Your task to perform on an android device: Empty the shopping cart on costco.com. Search for "macbook" on costco.com, select the first entry, add it to the cart, then select checkout. Image 0: 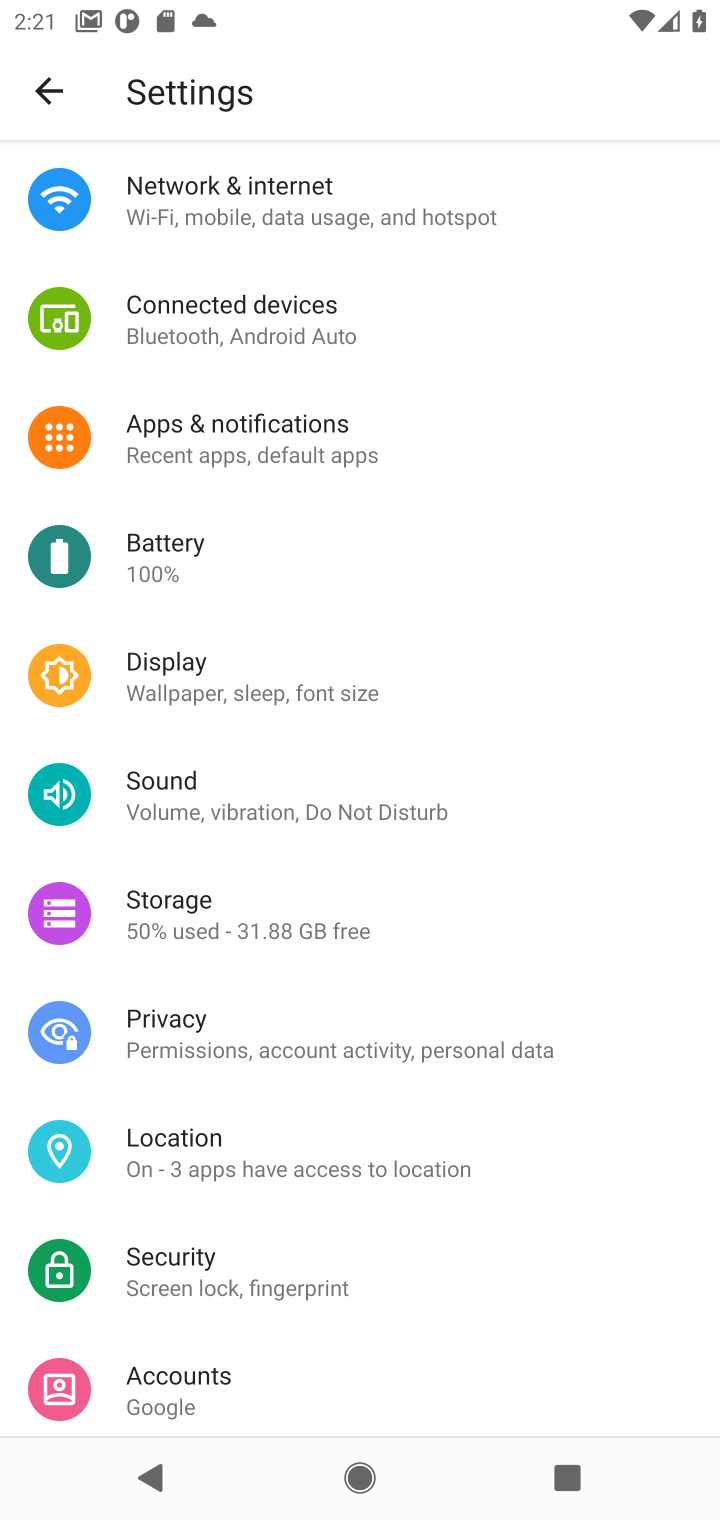
Step 0: press home button
Your task to perform on an android device: Empty the shopping cart on costco.com. Search for "macbook" on costco.com, select the first entry, add it to the cart, then select checkout. Image 1: 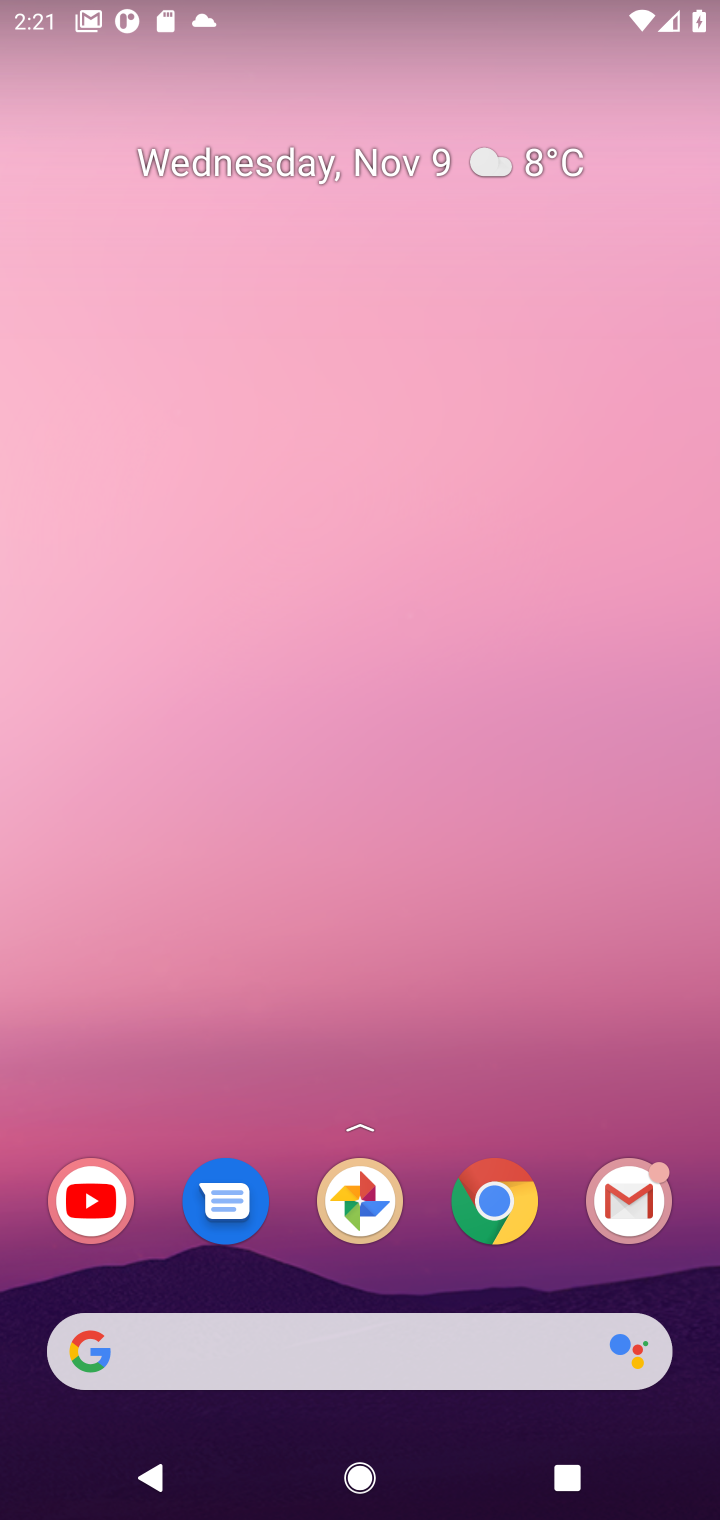
Step 1: click (368, 1339)
Your task to perform on an android device: Empty the shopping cart on costco.com. Search for "macbook" on costco.com, select the first entry, add it to the cart, then select checkout. Image 2: 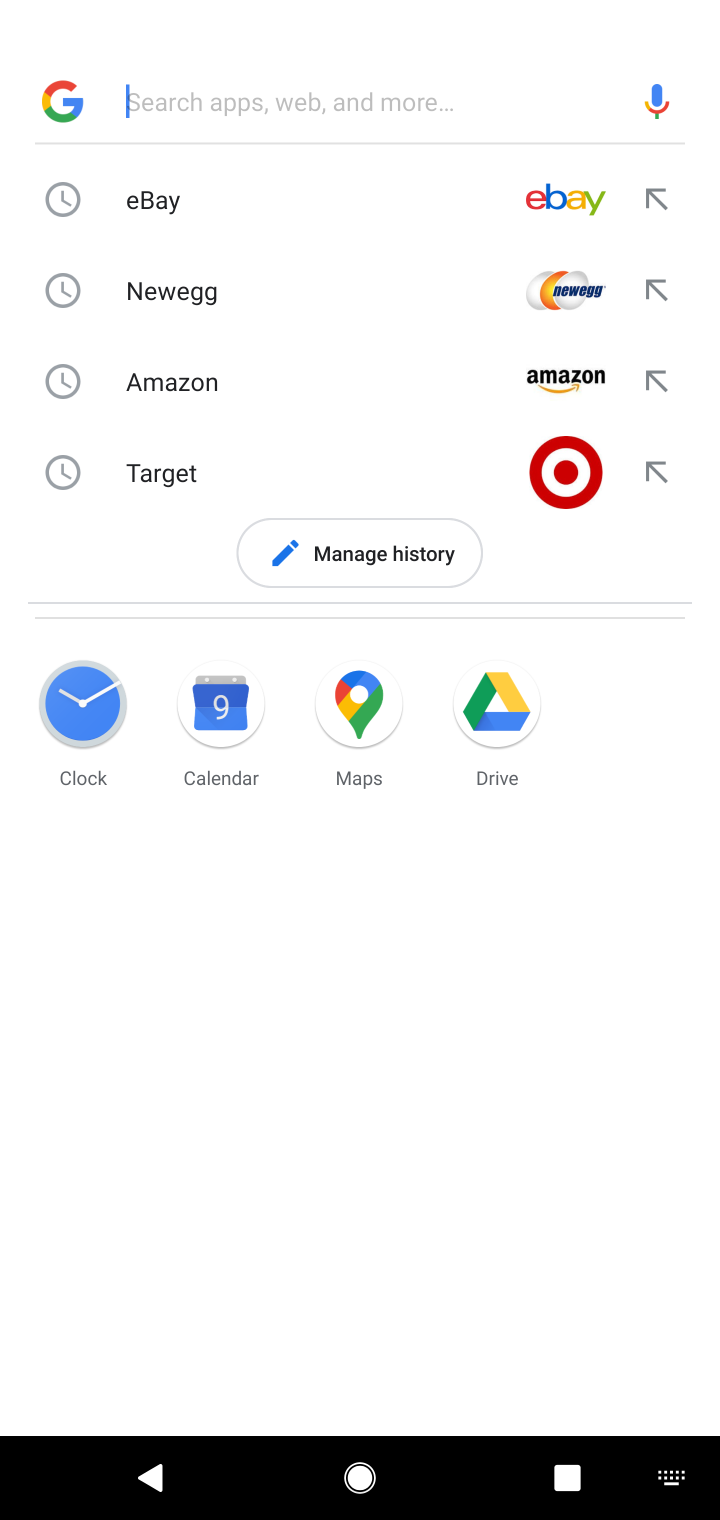
Step 2: type "costco.com"
Your task to perform on an android device: Empty the shopping cart on costco.com. Search for "macbook" on costco.com, select the first entry, add it to the cart, then select checkout. Image 3: 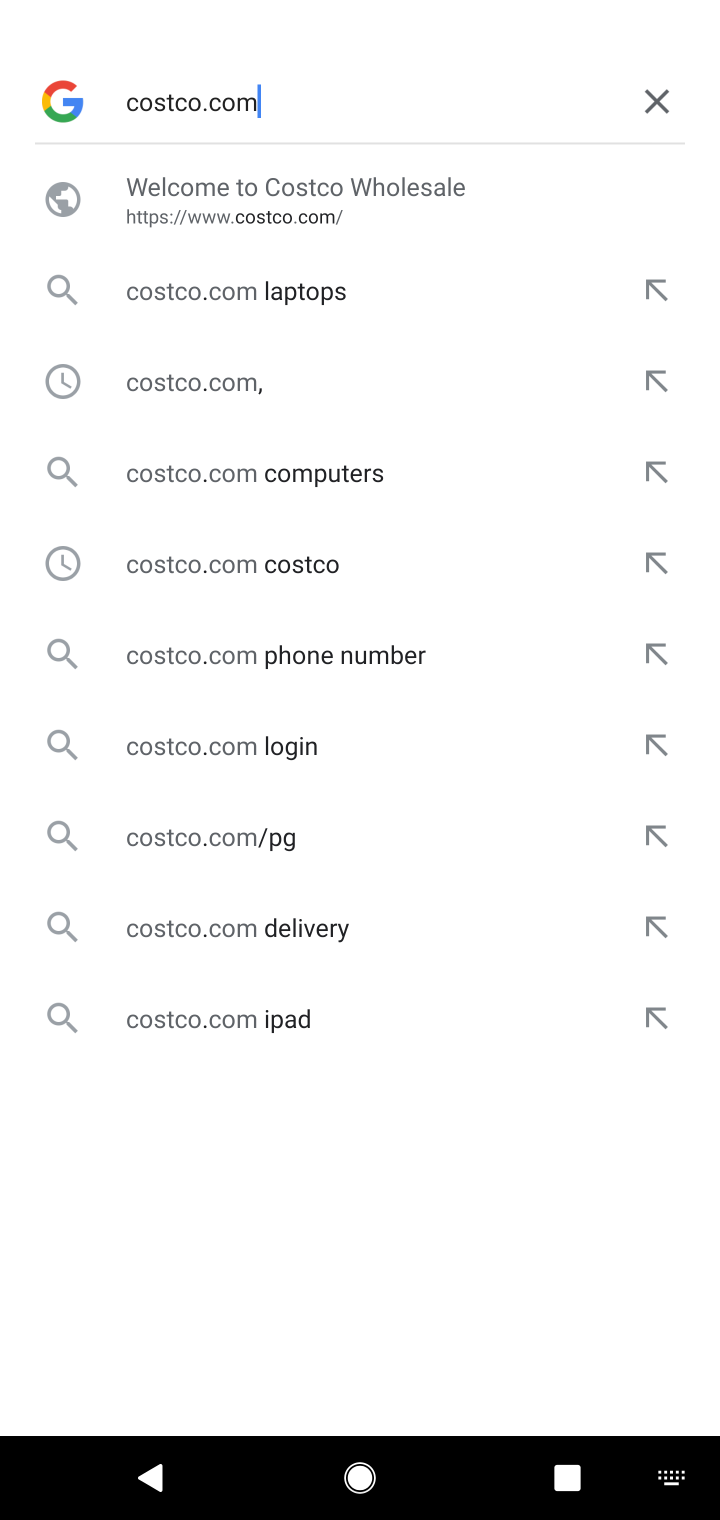
Step 3: click (248, 208)
Your task to perform on an android device: Empty the shopping cart on costco.com. Search for "macbook" on costco.com, select the first entry, add it to the cart, then select checkout. Image 4: 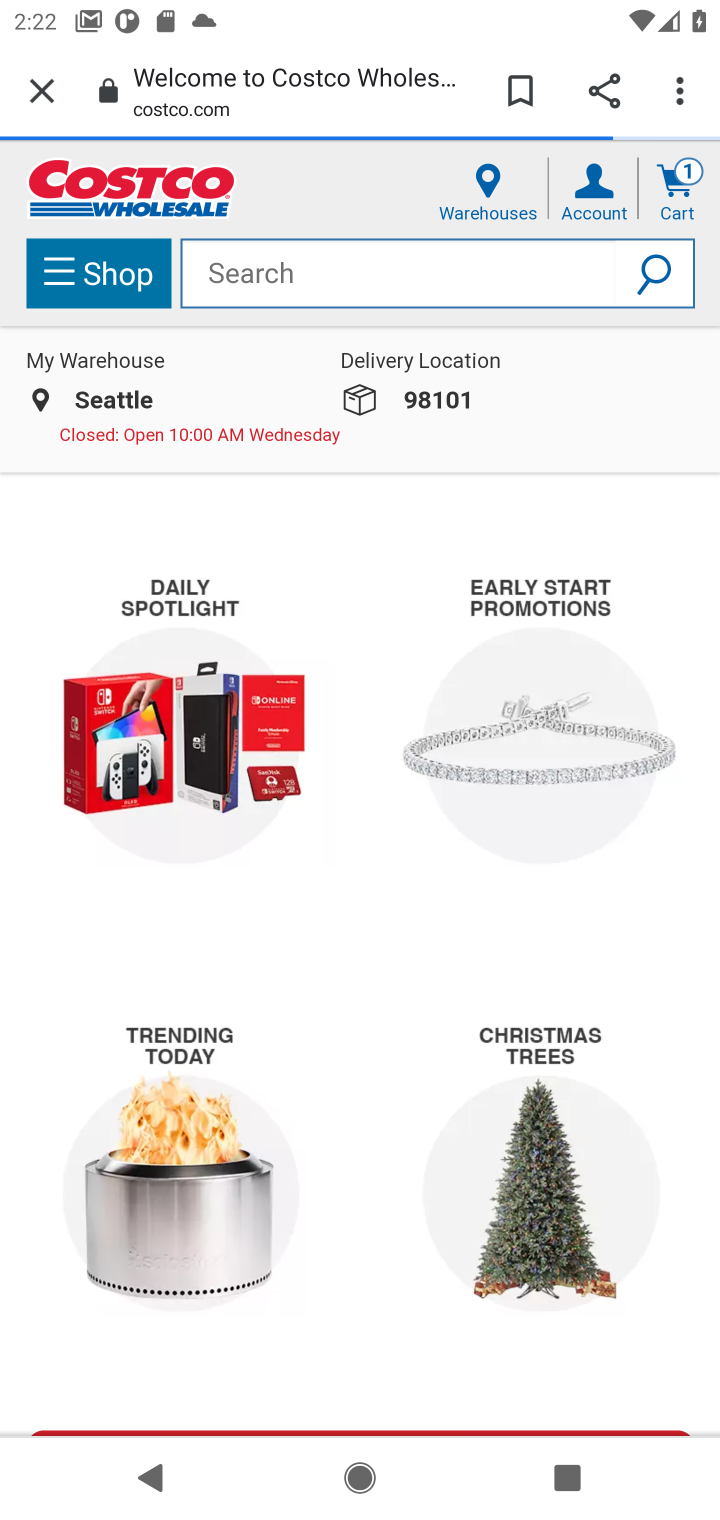
Step 4: click (327, 236)
Your task to perform on an android device: Empty the shopping cart on costco.com. Search for "macbook" on costco.com, select the first entry, add it to the cart, then select checkout. Image 5: 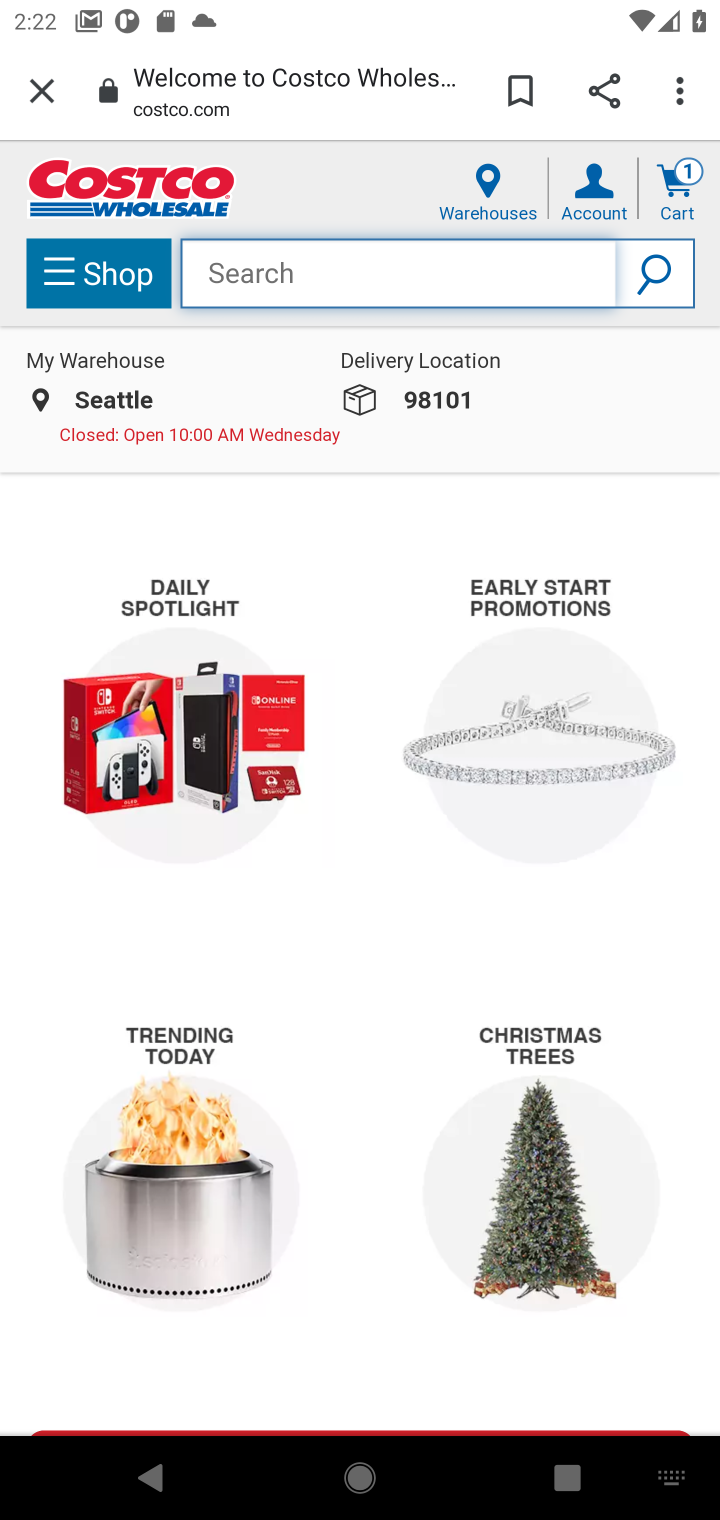
Step 5: type "macbook"
Your task to perform on an android device: Empty the shopping cart on costco.com. Search for "macbook" on costco.com, select the first entry, add it to the cart, then select checkout. Image 6: 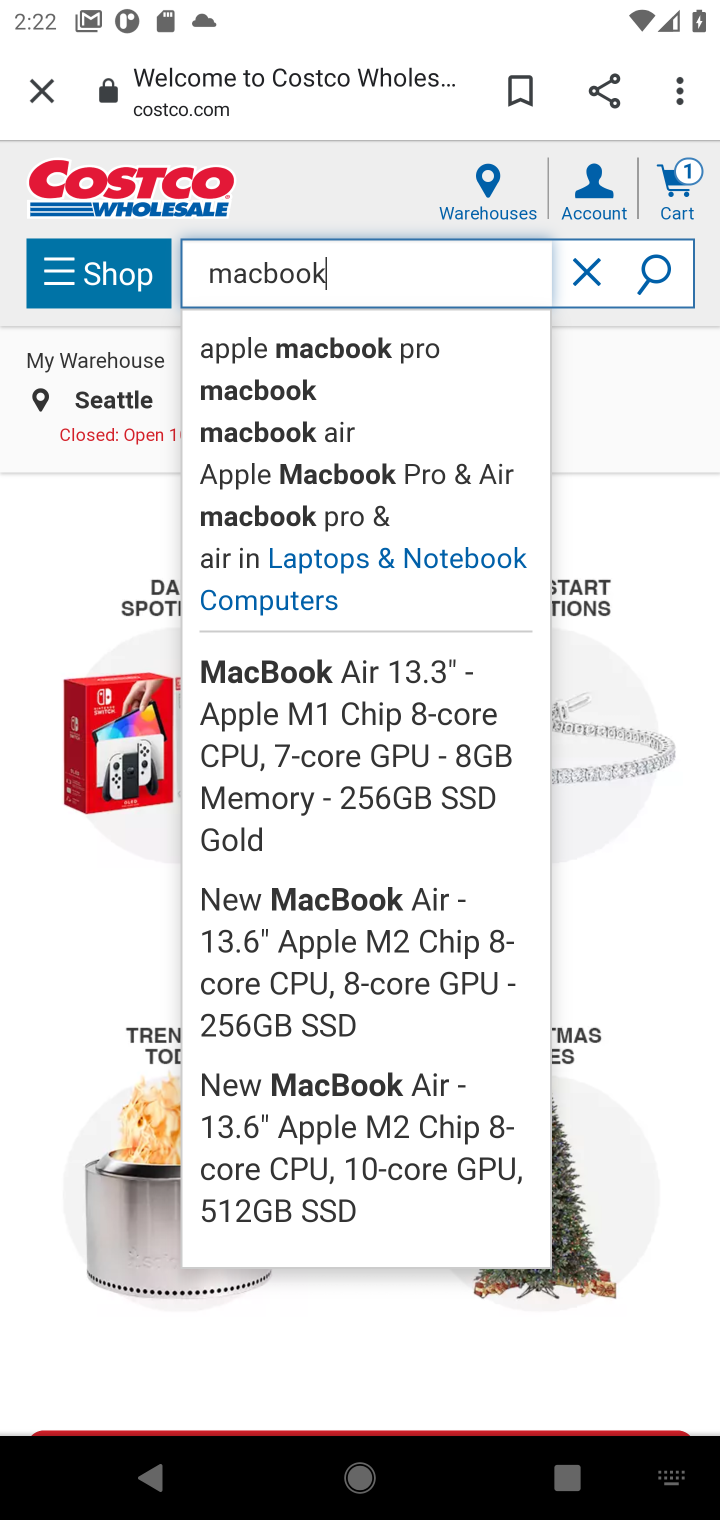
Step 6: click (278, 390)
Your task to perform on an android device: Empty the shopping cart on costco.com. Search for "macbook" on costco.com, select the first entry, add it to the cart, then select checkout. Image 7: 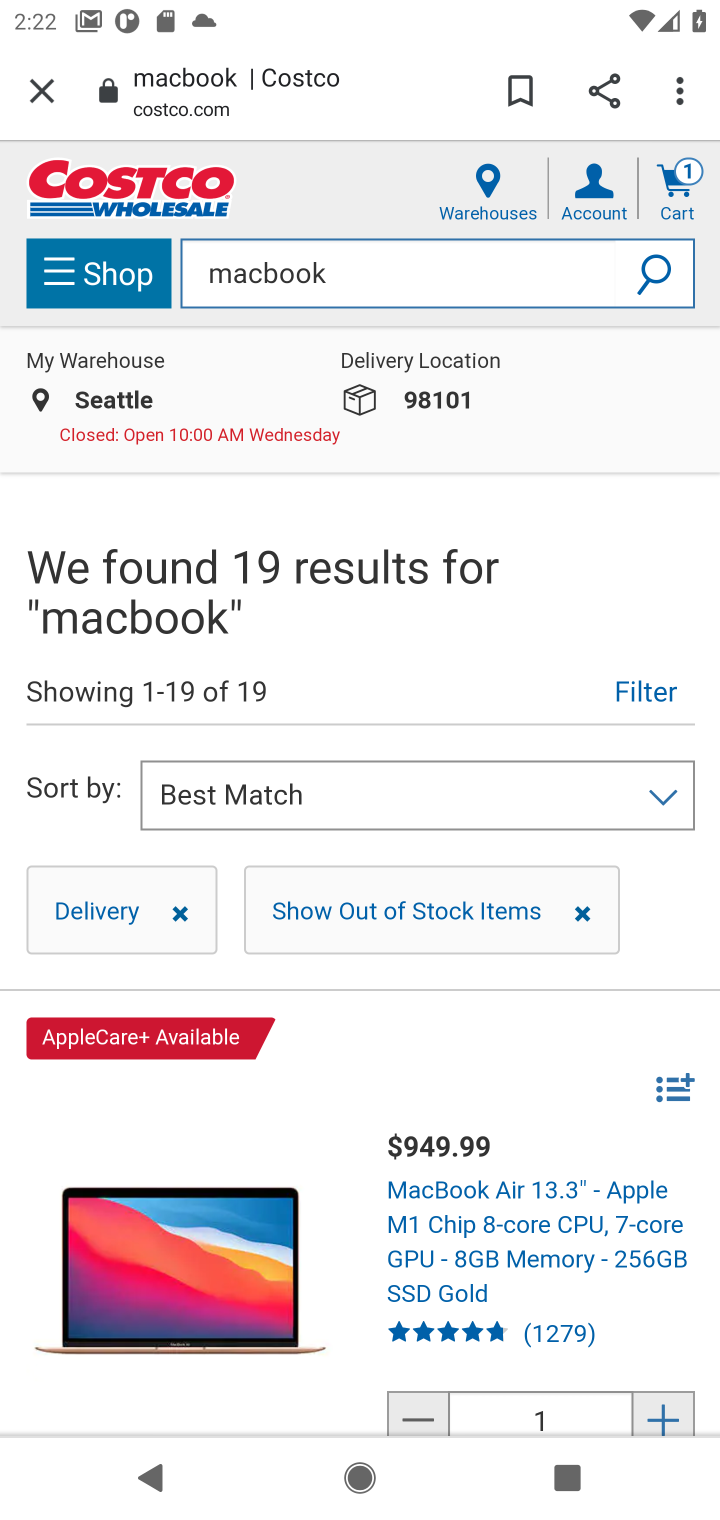
Step 7: drag from (503, 1008) to (503, 741)
Your task to perform on an android device: Empty the shopping cart on costco.com. Search for "macbook" on costco.com, select the first entry, add it to the cart, then select checkout. Image 8: 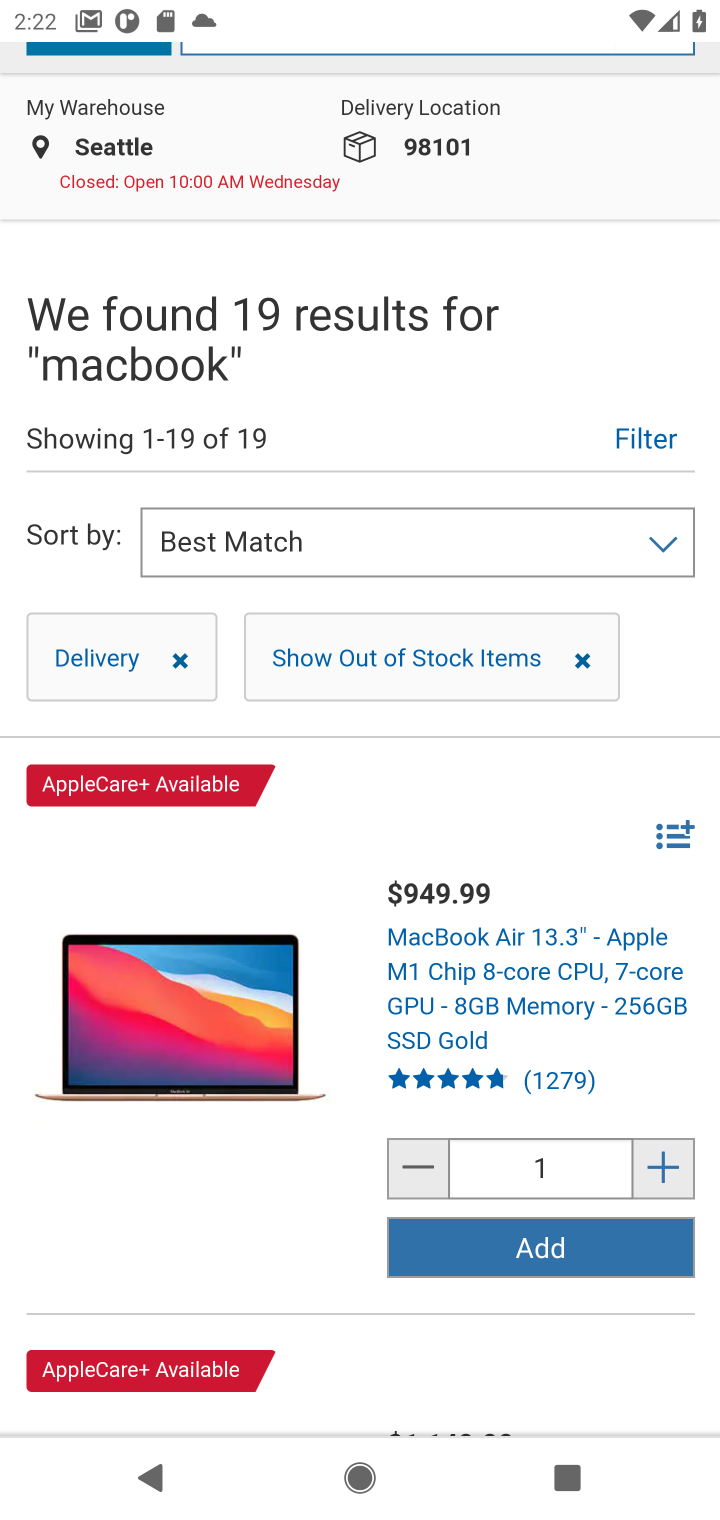
Step 8: click (542, 1254)
Your task to perform on an android device: Empty the shopping cart on costco.com. Search for "macbook" on costco.com, select the first entry, add it to the cart, then select checkout. Image 9: 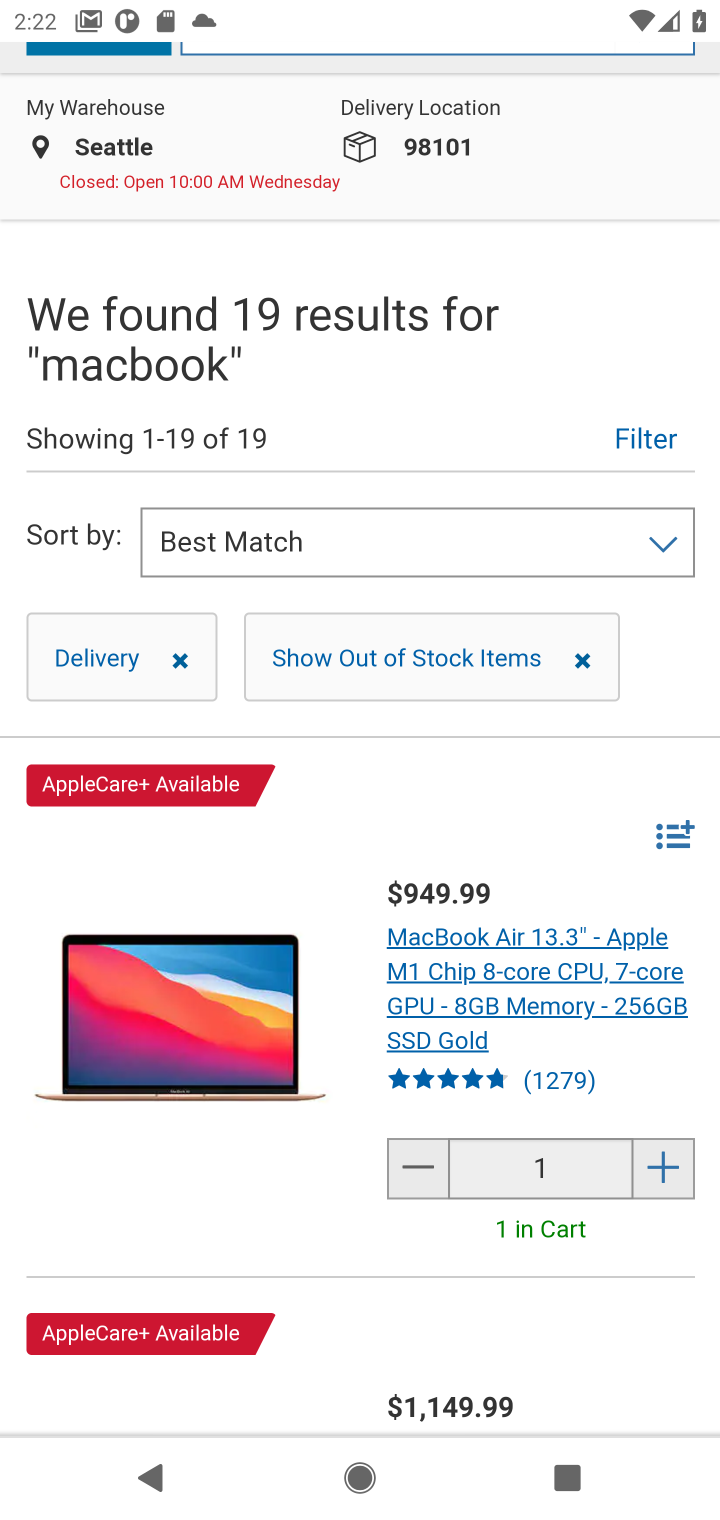
Step 9: task complete